Your task to perform on an android device: find which apps use the phone's location Image 0: 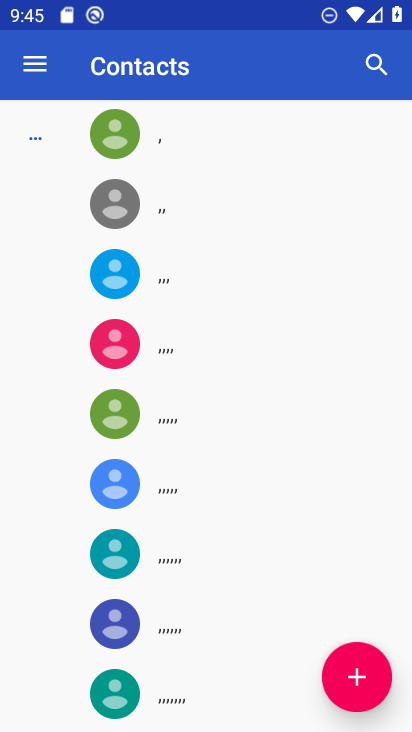
Step 0: press home button
Your task to perform on an android device: find which apps use the phone's location Image 1: 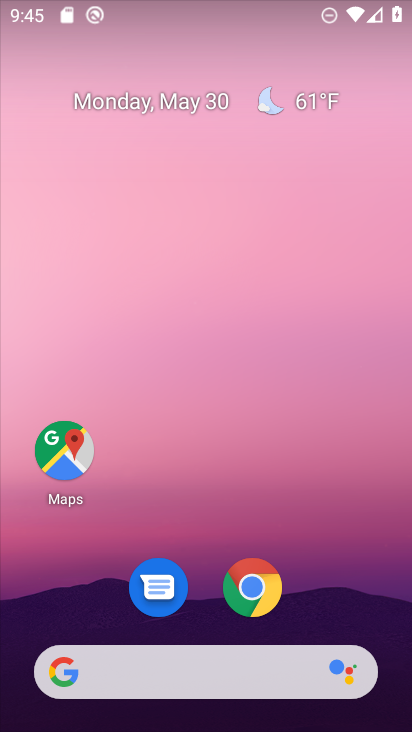
Step 1: drag from (260, 644) to (160, 55)
Your task to perform on an android device: find which apps use the phone's location Image 2: 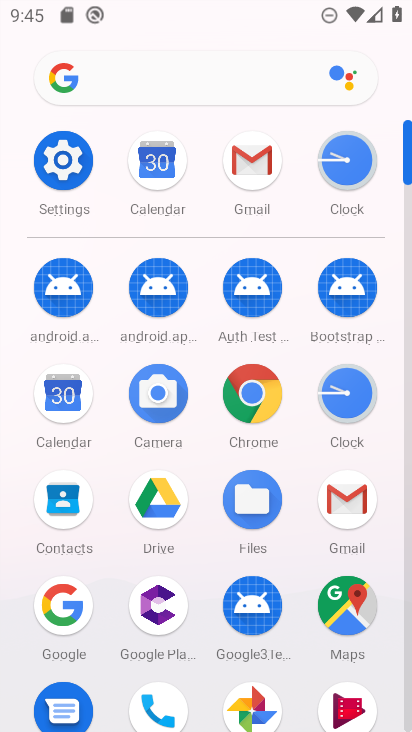
Step 2: click (68, 160)
Your task to perform on an android device: find which apps use the phone's location Image 3: 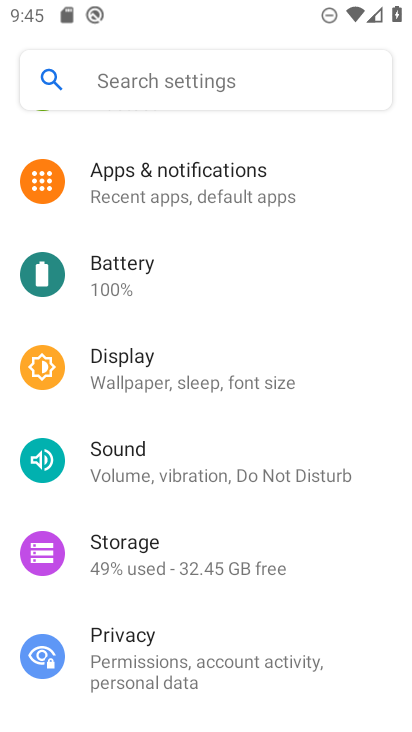
Step 3: drag from (151, 510) to (158, 176)
Your task to perform on an android device: find which apps use the phone's location Image 4: 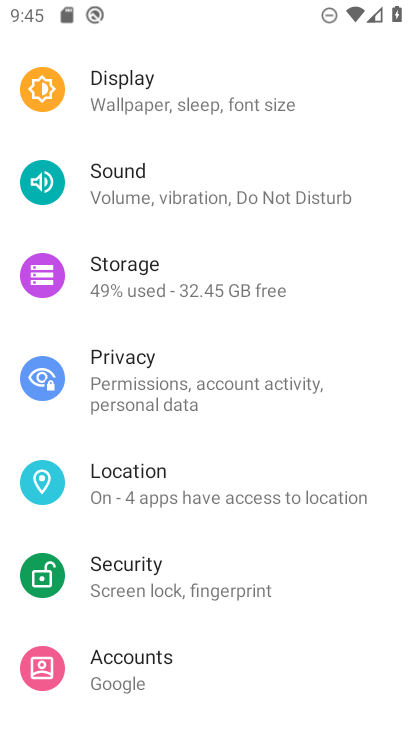
Step 4: click (166, 476)
Your task to perform on an android device: find which apps use the phone's location Image 5: 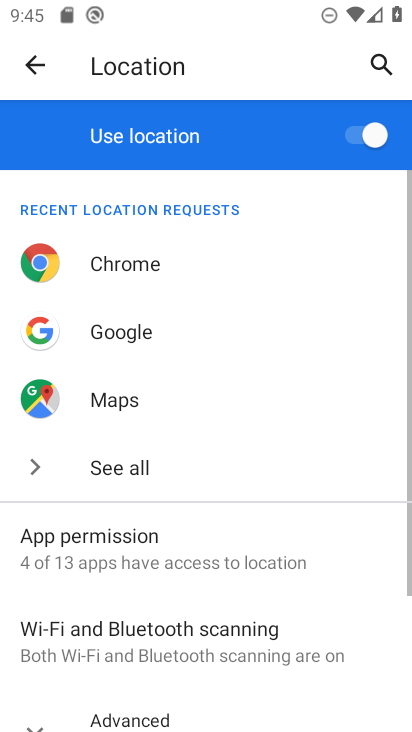
Step 5: click (125, 522)
Your task to perform on an android device: find which apps use the phone's location Image 6: 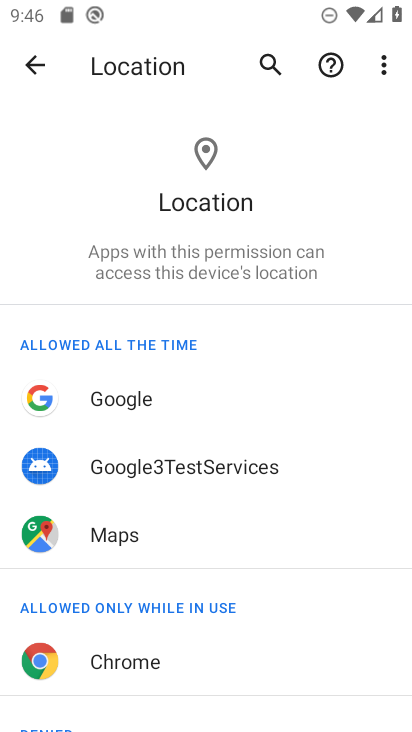
Step 6: task complete